Your task to perform on an android device: snooze an email in the gmail app Image 0: 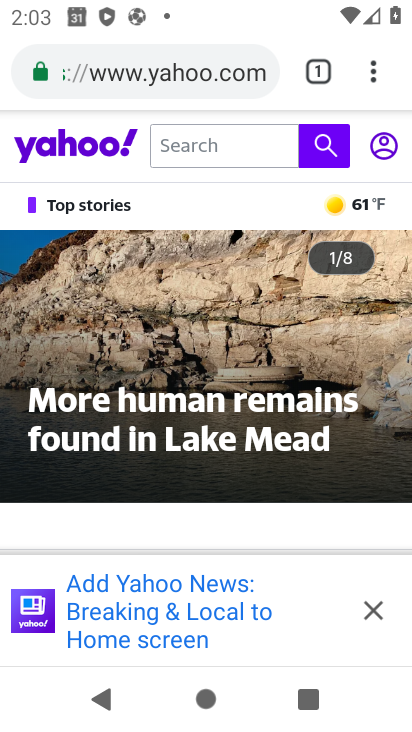
Step 0: press home button
Your task to perform on an android device: snooze an email in the gmail app Image 1: 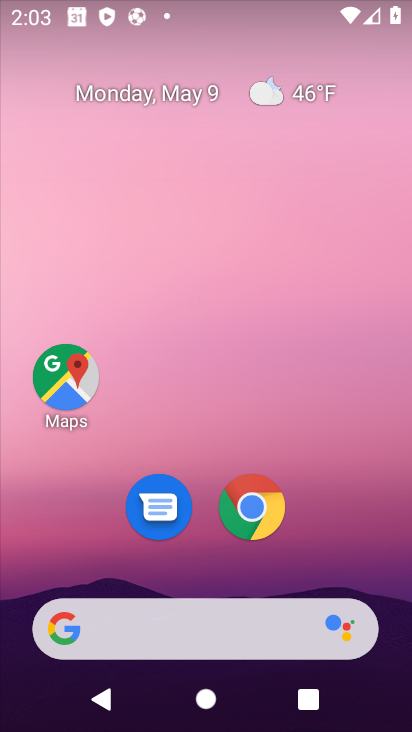
Step 1: drag from (207, 379) to (282, 11)
Your task to perform on an android device: snooze an email in the gmail app Image 2: 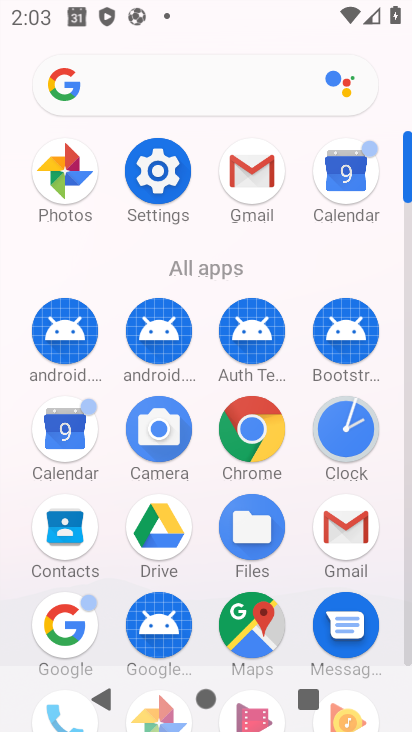
Step 2: click (246, 158)
Your task to perform on an android device: snooze an email in the gmail app Image 3: 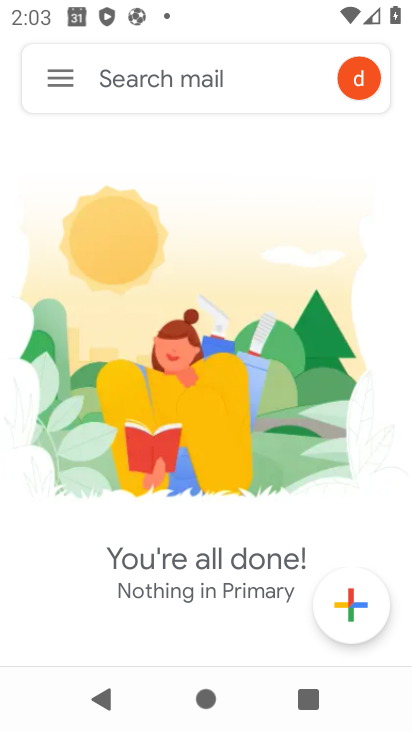
Step 3: click (53, 80)
Your task to perform on an android device: snooze an email in the gmail app Image 4: 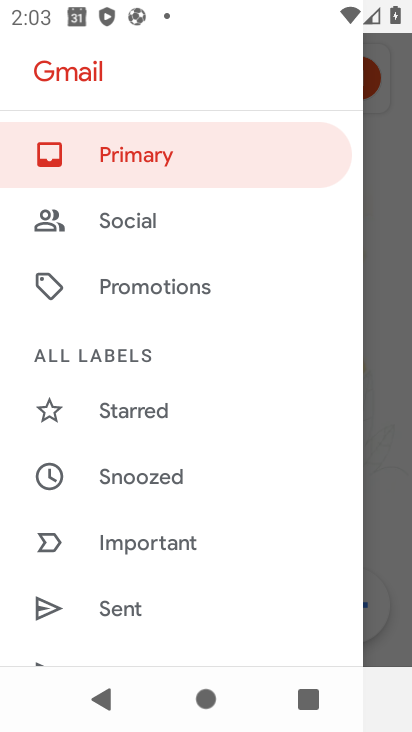
Step 4: click (367, 254)
Your task to perform on an android device: snooze an email in the gmail app Image 5: 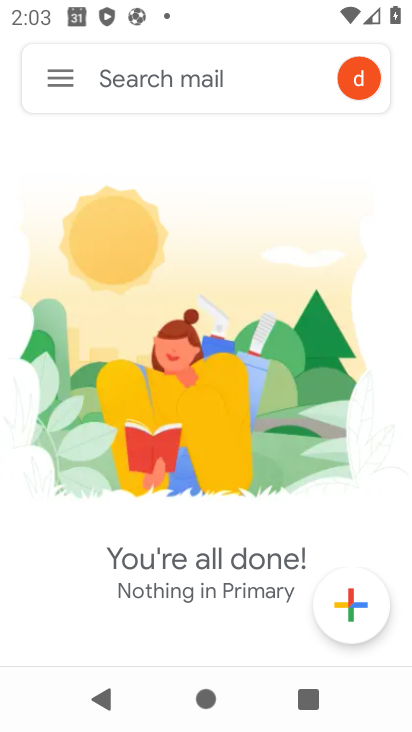
Step 5: press home button
Your task to perform on an android device: snooze an email in the gmail app Image 6: 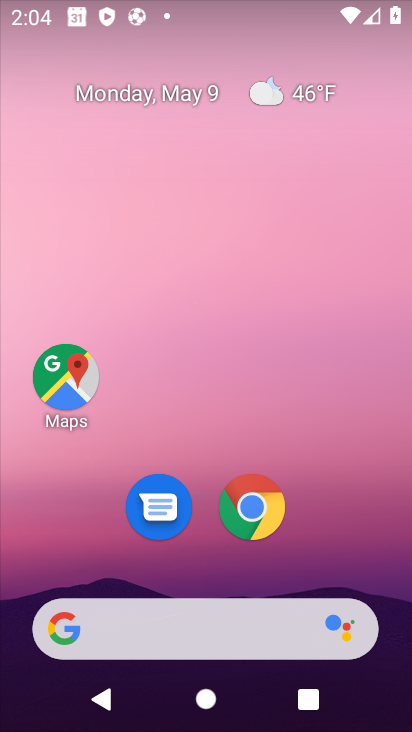
Step 6: drag from (232, 542) to (328, 18)
Your task to perform on an android device: snooze an email in the gmail app Image 7: 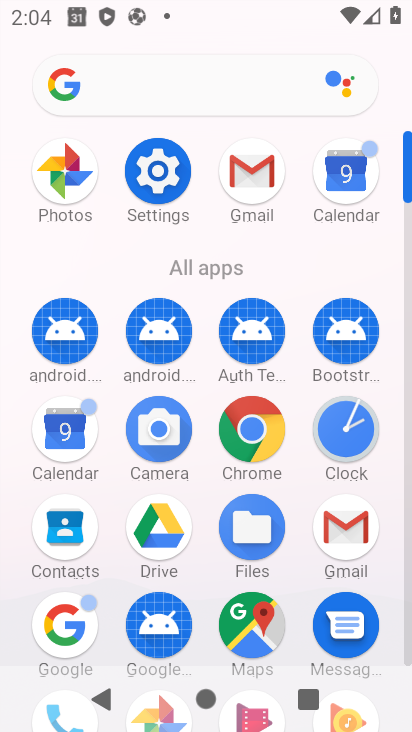
Step 7: click (257, 179)
Your task to perform on an android device: snooze an email in the gmail app Image 8: 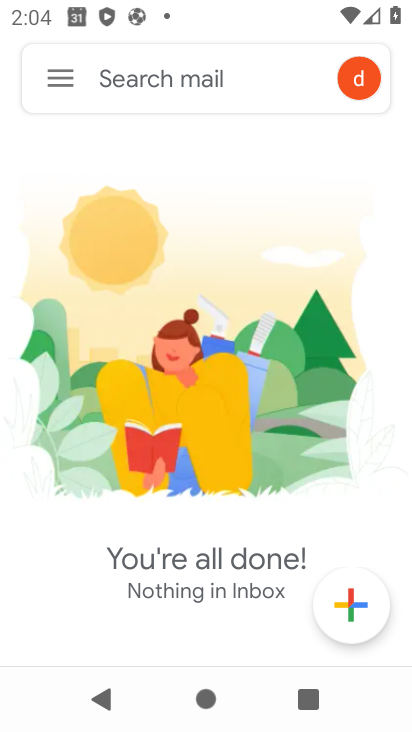
Step 8: task complete